Your task to perform on an android device: Open calendar and show me the second week of next month Image 0: 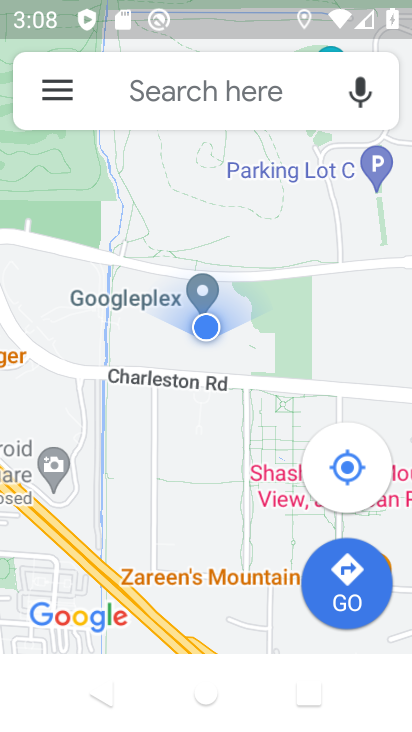
Step 0: press home button
Your task to perform on an android device: Open calendar and show me the second week of next month Image 1: 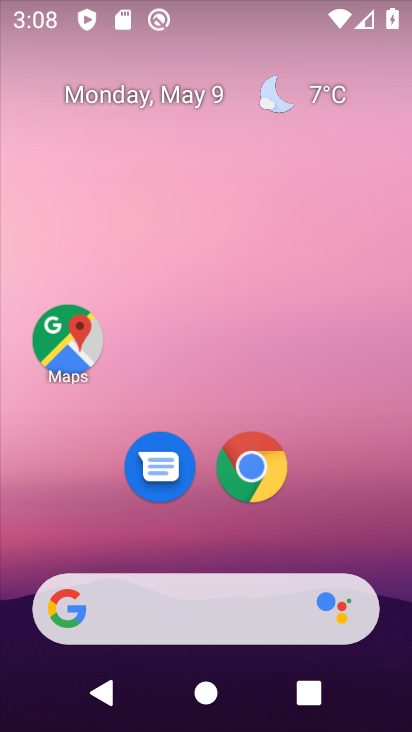
Step 1: drag from (357, 549) to (342, 23)
Your task to perform on an android device: Open calendar and show me the second week of next month Image 2: 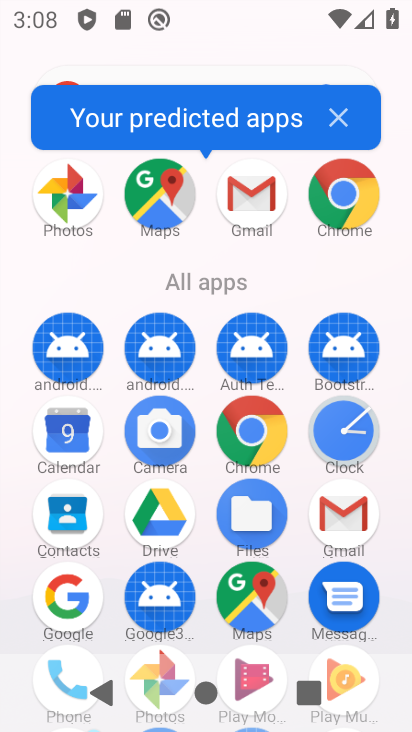
Step 2: click (70, 442)
Your task to perform on an android device: Open calendar and show me the second week of next month Image 3: 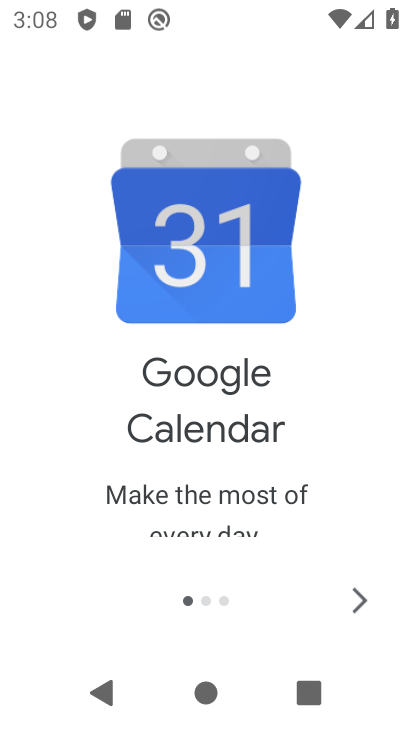
Step 3: click (359, 611)
Your task to perform on an android device: Open calendar and show me the second week of next month Image 4: 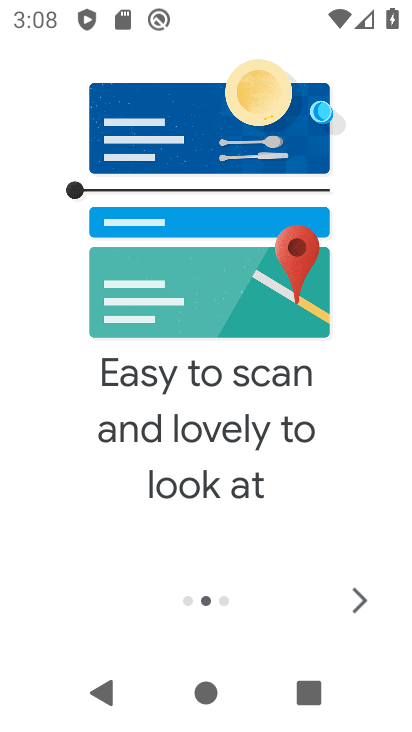
Step 4: click (359, 611)
Your task to perform on an android device: Open calendar and show me the second week of next month Image 5: 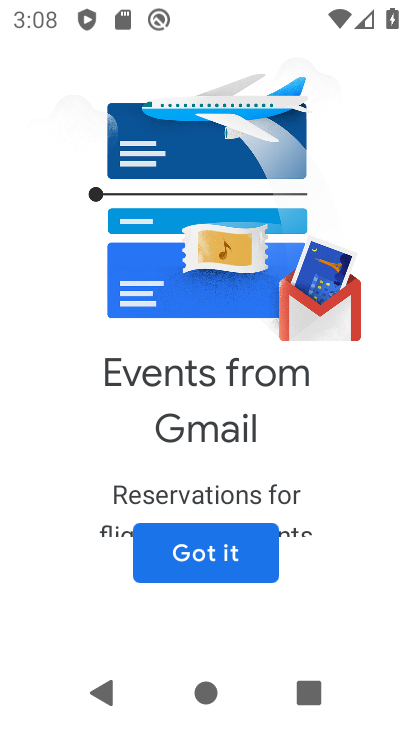
Step 5: click (207, 560)
Your task to perform on an android device: Open calendar and show me the second week of next month Image 6: 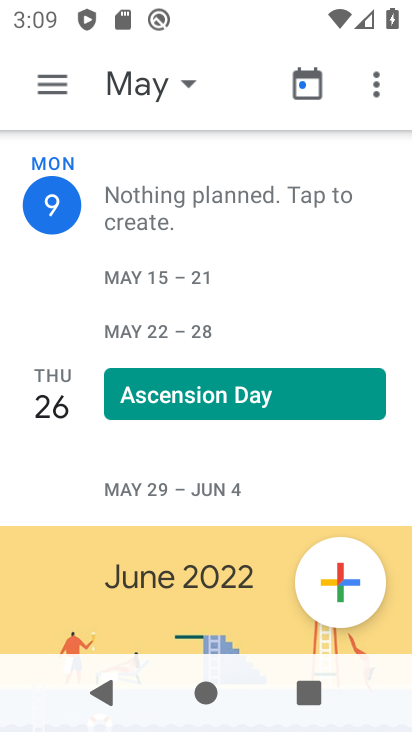
Step 6: click (185, 91)
Your task to perform on an android device: Open calendar and show me the second week of next month Image 7: 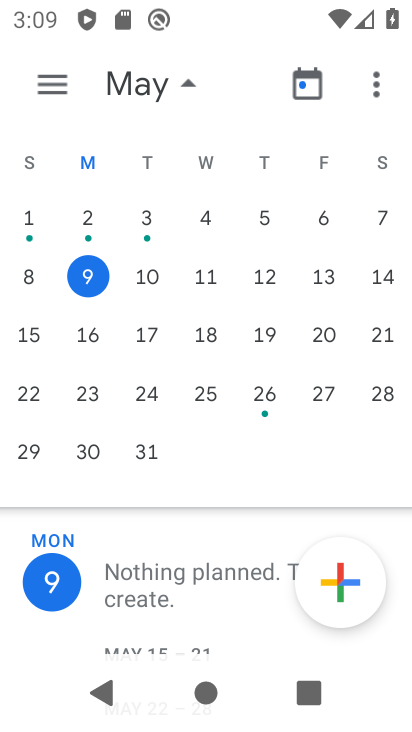
Step 7: drag from (282, 261) to (28, 389)
Your task to perform on an android device: Open calendar and show me the second week of next month Image 8: 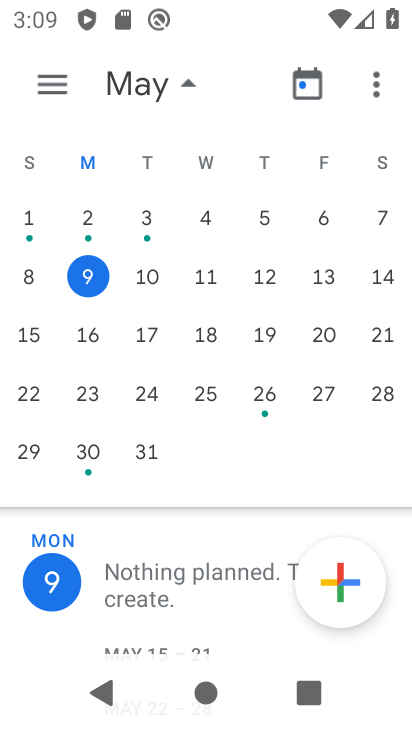
Step 8: drag from (330, 286) to (2, 376)
Your task to perform on an android device: Open calendar and show me the second week of next month Image 9: 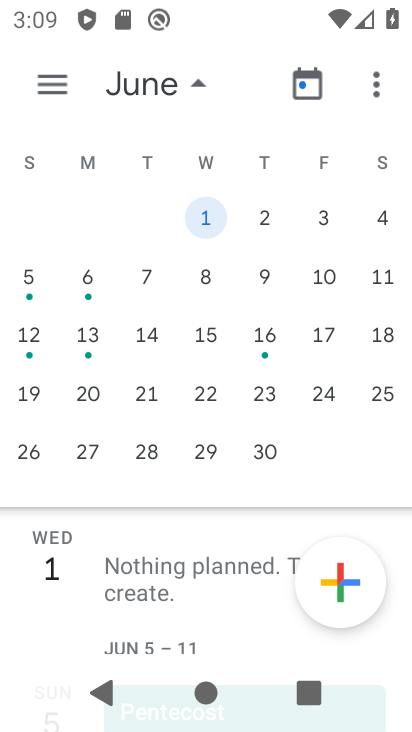
Step 9: click (41, 79)
Your task to perform on an android device: Open calendar and show me the second week of next month Image 10: 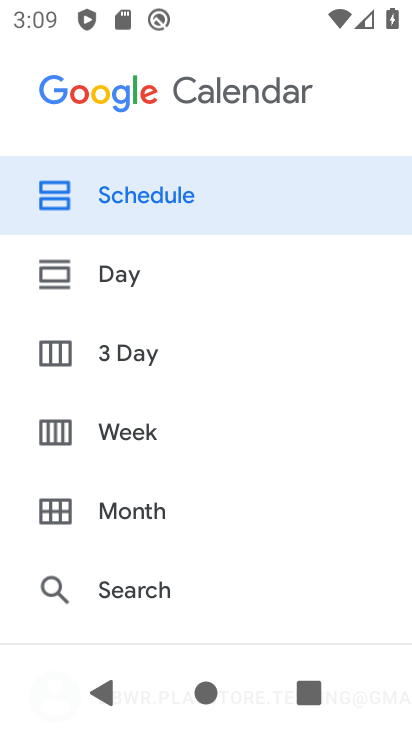
Step 10: click (70, 429)
Your task to perform on an android device: Open calendar and show me the second week of next month Image 11: 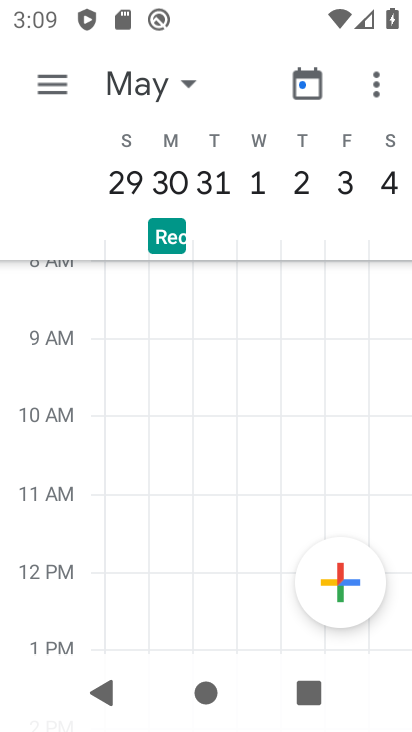
Step 11: task complete